Your task to perform on an android device: check google app version Image 0: 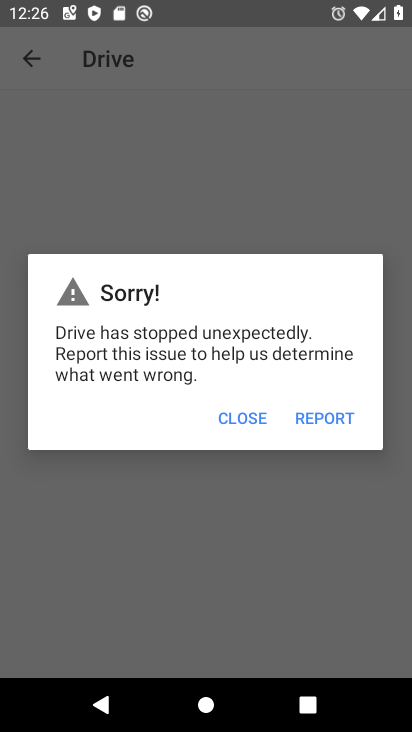
Step 0: press home button
Your task to perform on an android device: check google app version Image 1: 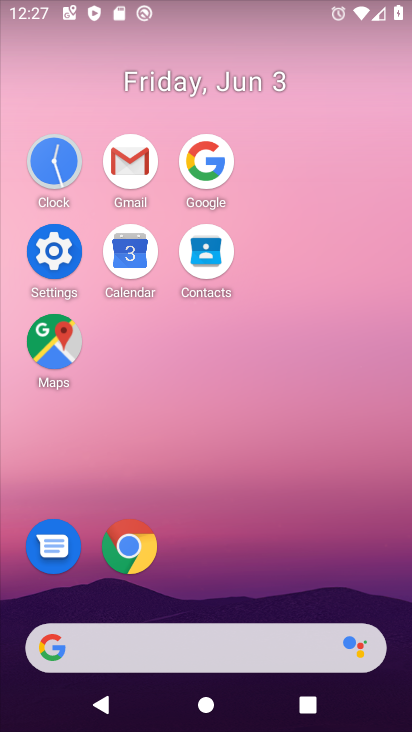
Step 1: click (219, 163)
Your task to perform on an android device: check google app version Image 2: 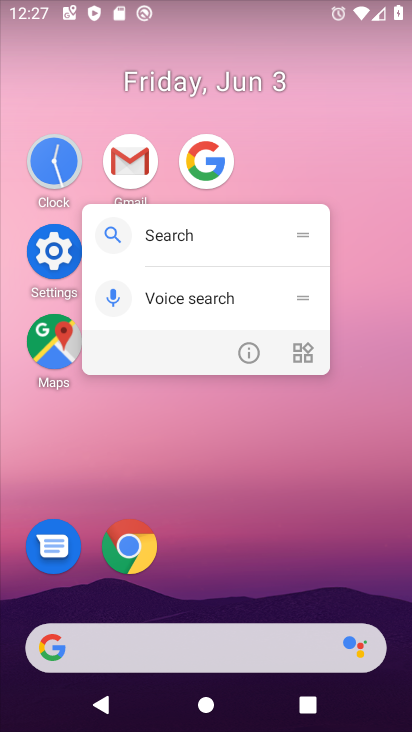
Step 2: click (248, 355)
Your task to perform on an android device: check google app version Image 3: 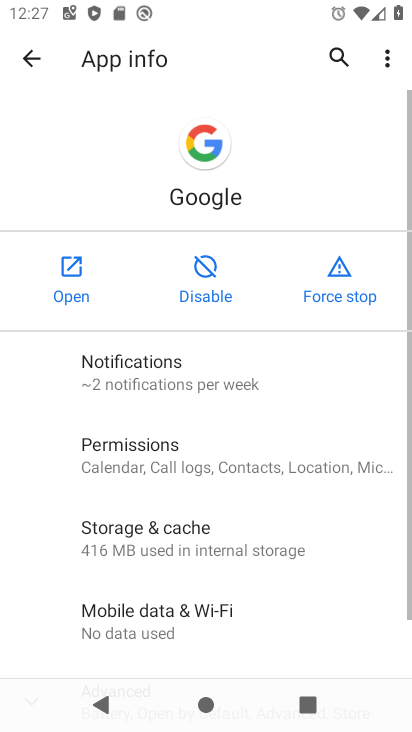
Step 3: drag from (236, 577) to (254, 93)
Your task to perform on an android device: check google app version Image 4: 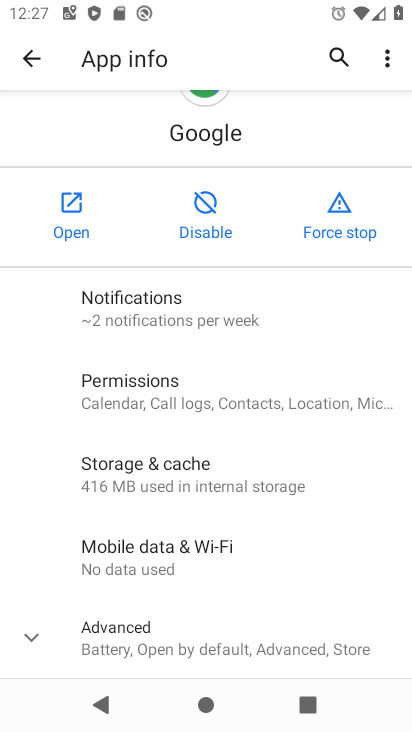
Step 4: click (196, 640)
Your task to perform on an android device: check google app version Image 5: 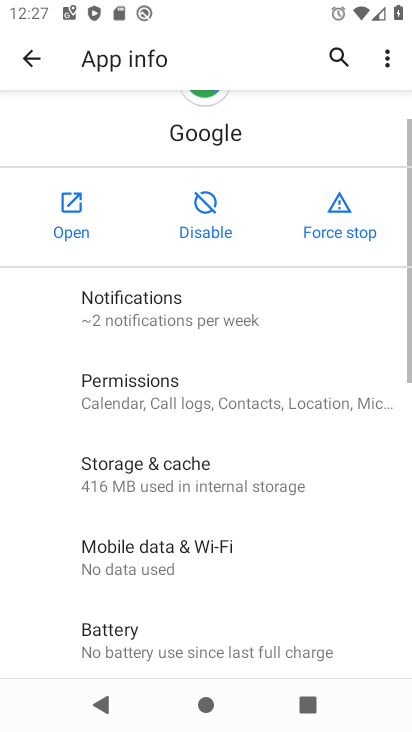
Step 5: task complete